Your task to perform on an android device: check data usage Image 0: 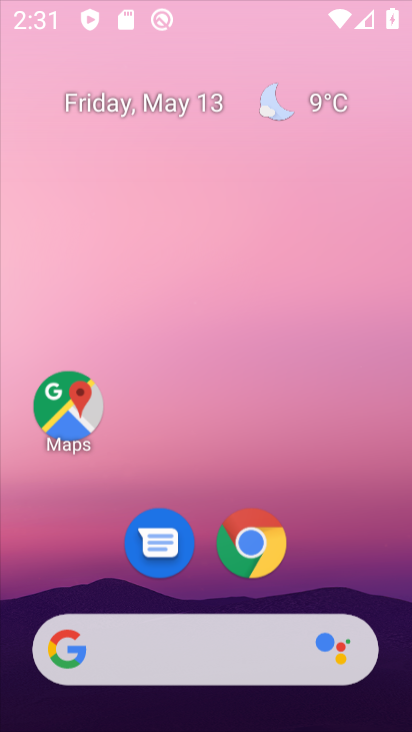
Step 0: drag from (212, 453) to (320, 167)
Your task to perform on an android device: check data usage Image 1: 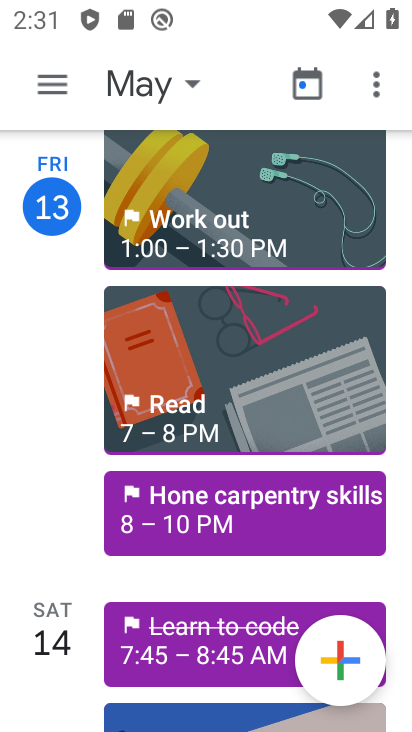
Step 1: press home button
Your task to perform on an android device: check data usage Image 2: 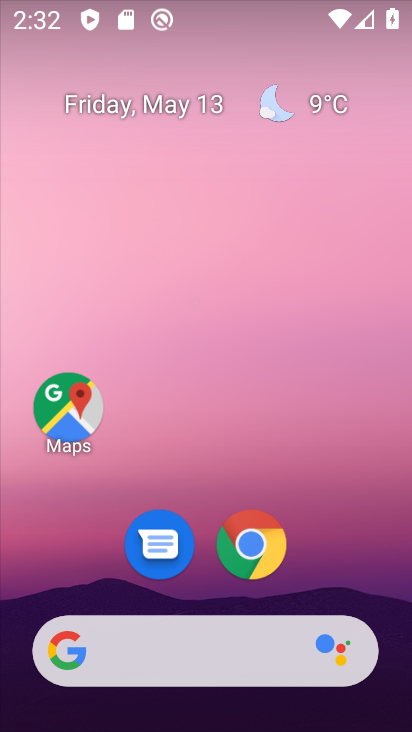
Step 2: drag from (177, 607) to (334, 83)
Your task to perform on an android device: check data usage Image 3: 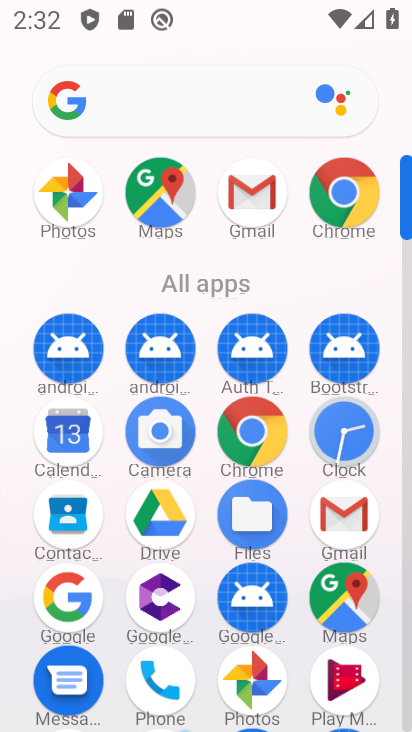
Step 3: drag from (238, 642) to (317, 351)
Your task to perform on an android device: check data usage Image 4: 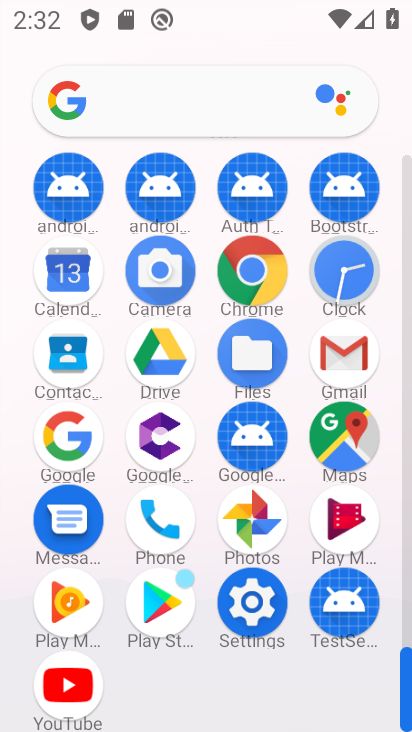
Step 4: click (259, 598)
Your task to perform on an android device: check data usage Image 5: 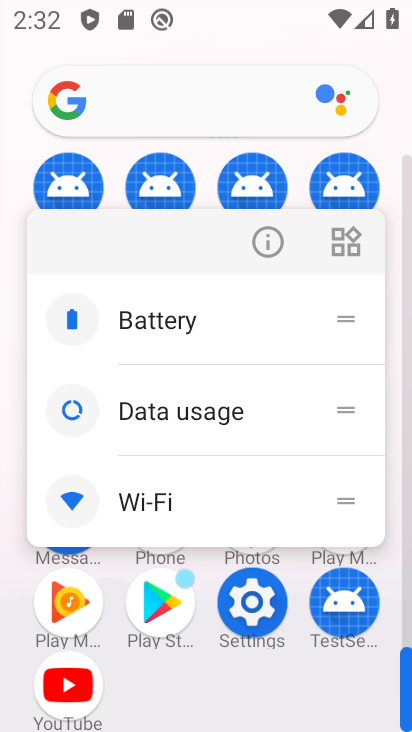
Step 5: click (248, 597)
Your task to perform on an android device: check data usage Image 6: 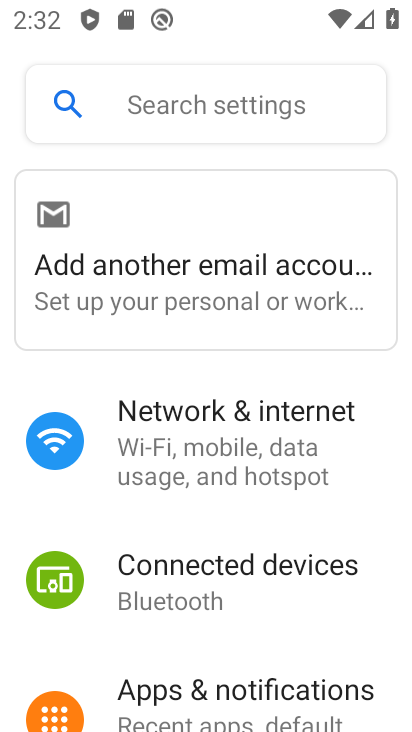
Step 6: click (259, 466)
Your task to perform on an android device: check data usage Image 7: 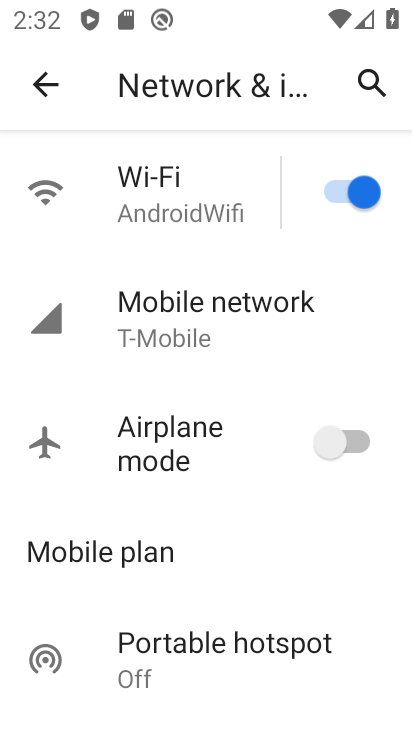
Step 7: click (225, 318)
Your task to perform on an android device: check data usage Image 8: 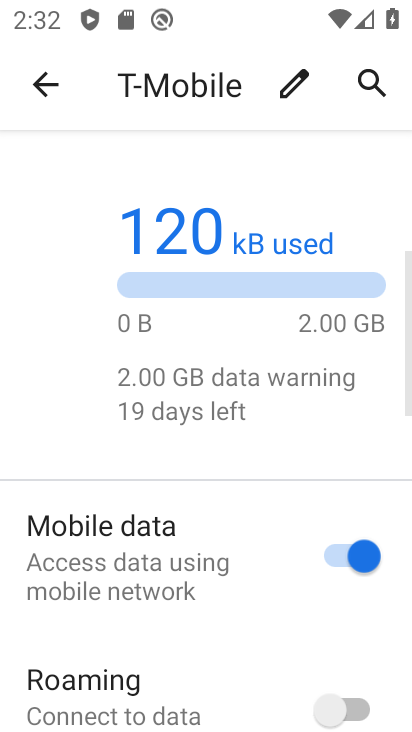
Step 8: drag from (260, 634) to (389, 196)
Your task to perform on an android device: check data usage Image 9: 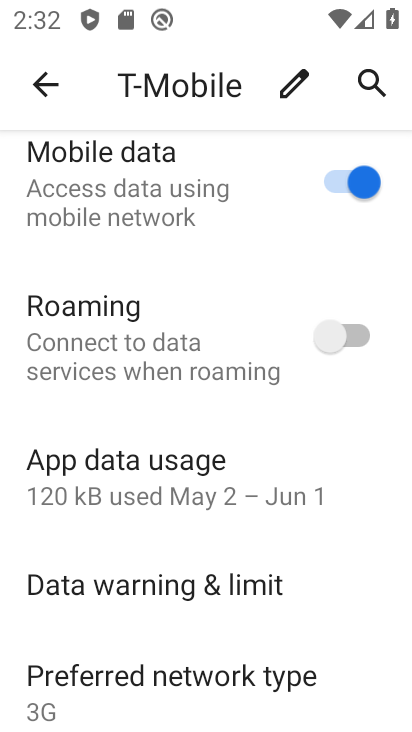
Step 9: click (231, 490)
Your task to perform on an android device: check data usage Image 10: 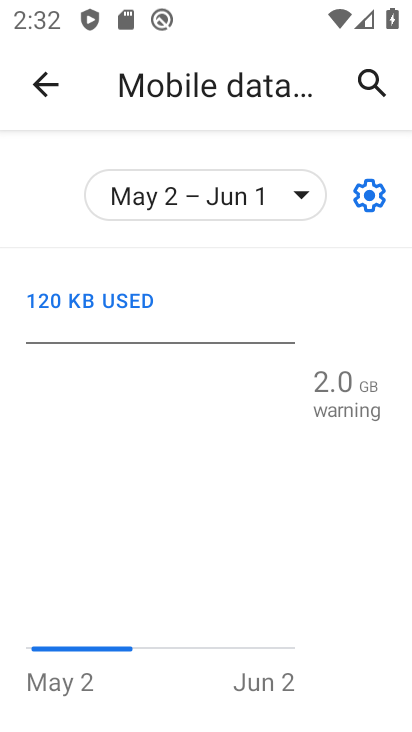
Step 10: task complete